Your task to perform on an android device: What's the weather today? Image 0: 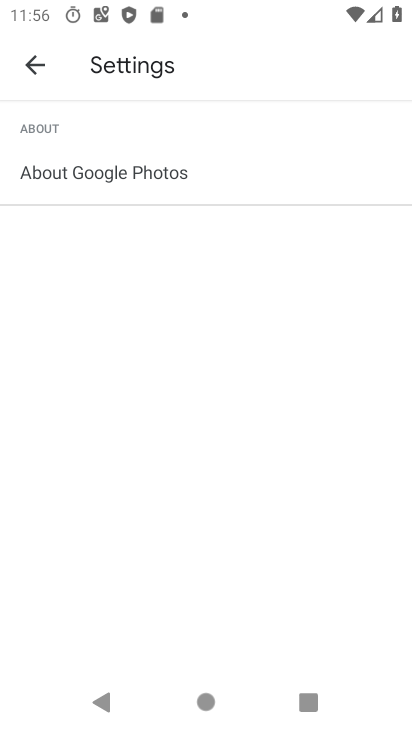
Step 0: press home button
Your task to perform on an android device: What's the weather today? Image 1: 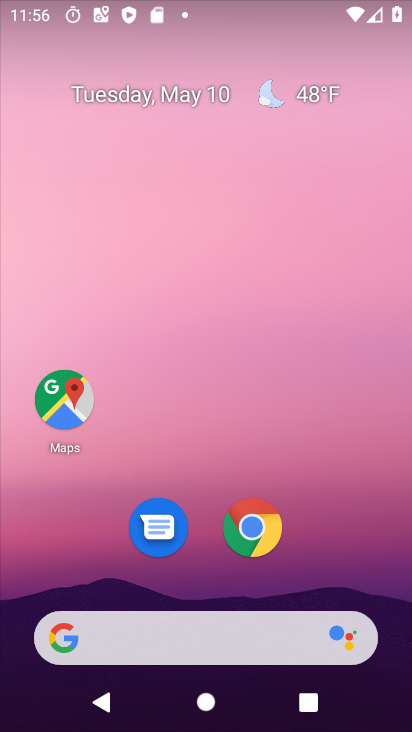
Step 1: click (269, 91)
Your task to perform on an android device: What's the weather today? Image 2: 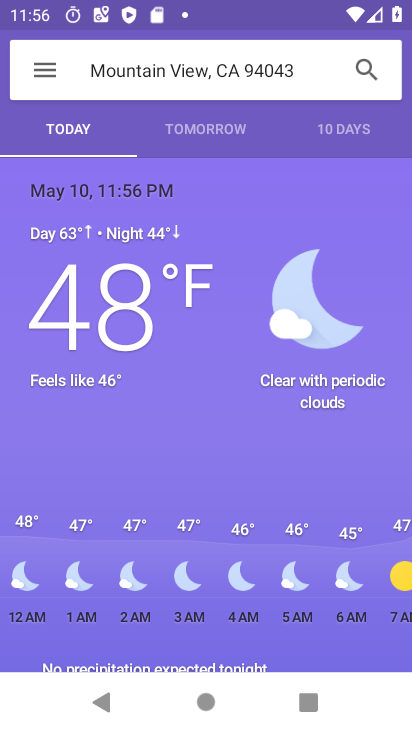
Step 2: task complete